Your task to perform on an android device: Open Google Chrome and open the bookmarks view Image 0: 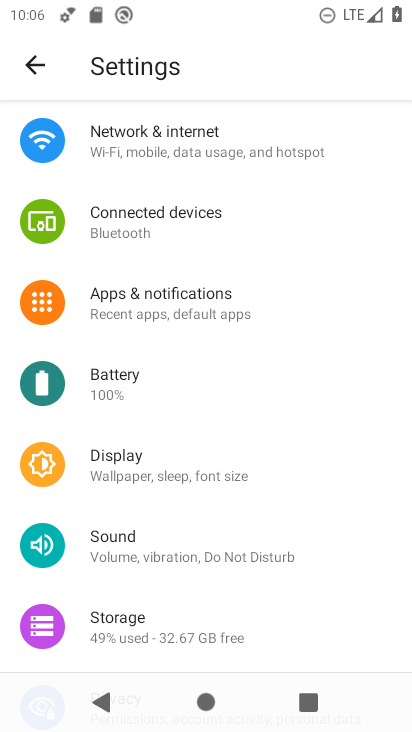
Step 0: press home button
Your task to perform on an android device: Open Google Chrome and open the bookmarks view Image 1: 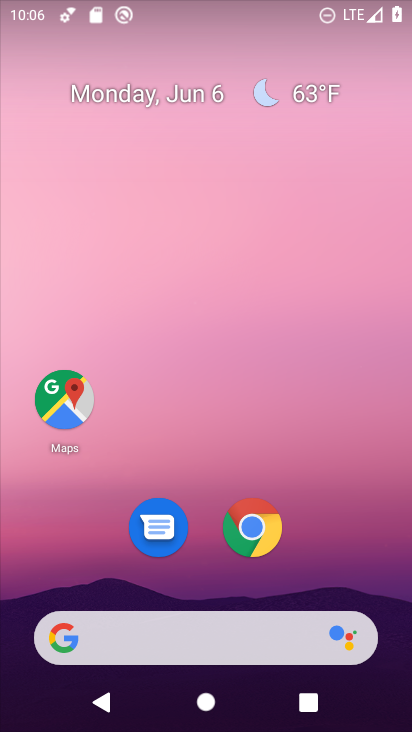
Step 1: drag from (366, 548) to (389, 125)
Your task to perform on an android device: Open Google Chrome and open the bookmarks view Image 2: 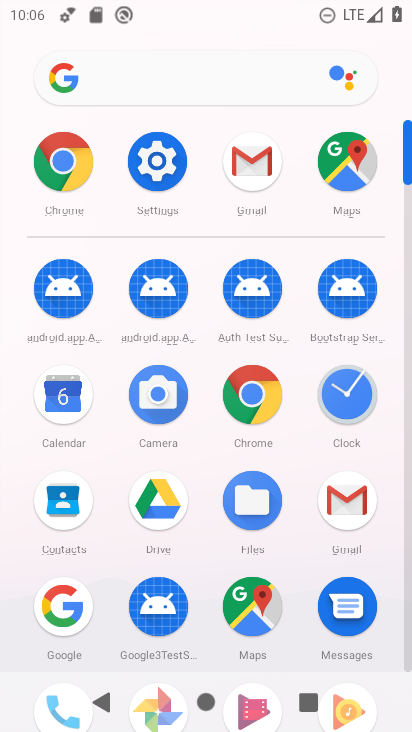
Step 2: click (250, 415)
Your task to perform on an android device: Open Google Chrome and open the bookmarks view Image 3: 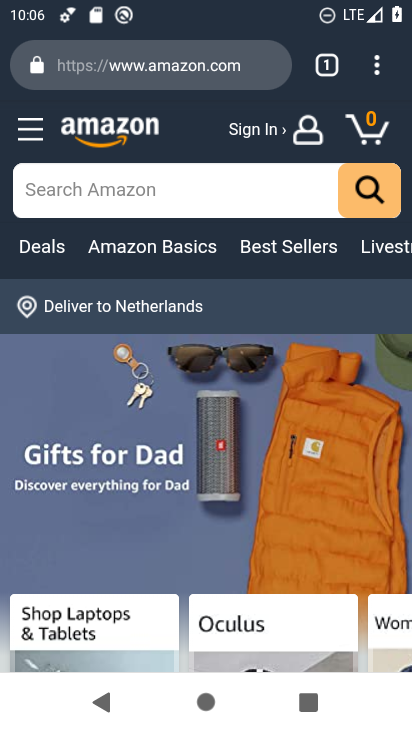
Step 3: click (378, 78)
Your task to perform on an android device: Open Google Chrome and open the bookmarks view Image 4: 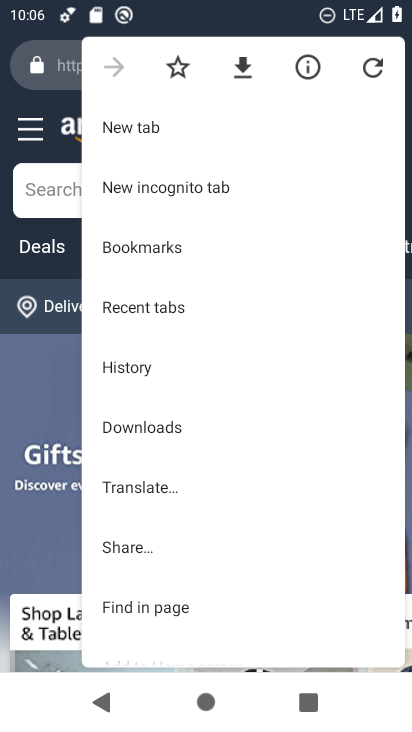
Step 4: click (217, 256)
Your task to perform on an android device: Open Google Chrome and open the bookmarks view Image 5: 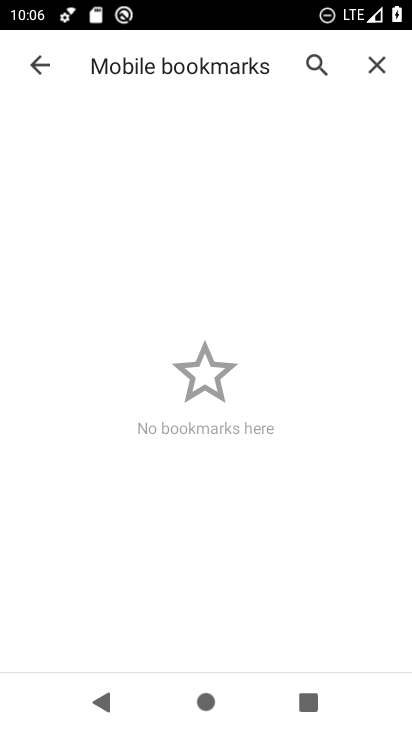
Step 5: task complete